Your task to perform on an android device: change notification settings in the gmail app Image 0: 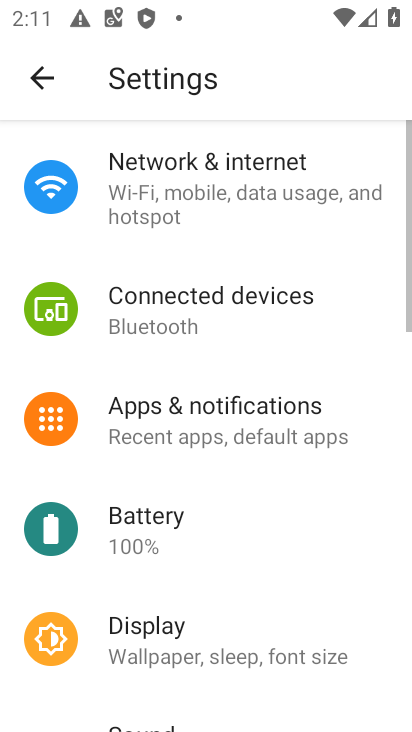
Step 0: press home button
Your task to perform on an android device: change notification settings in the gmail app Image 1: 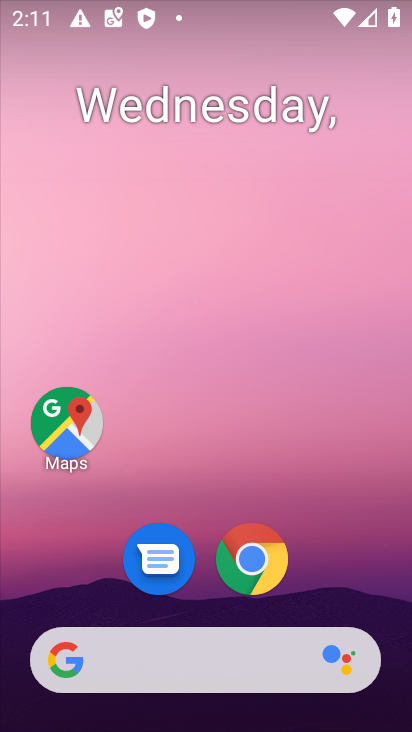
Step 1: drag from (193, 600) to (157, 77)
Your task to perform on an android device: change notification settings in the gmail app Image 2: 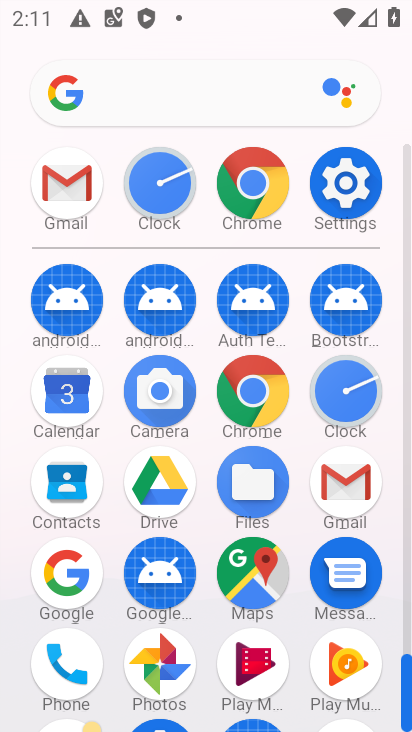
Step 2: click (351, 488)
Your task to perform on an android device: change notification settings in the gmail app Image 3: 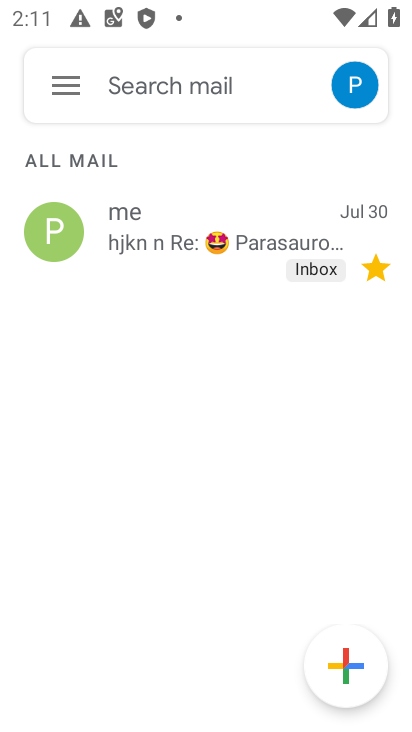
Step 3: click (69, 88)
Your task to perform on an android device: change notification settings in the gmail app Image 4: 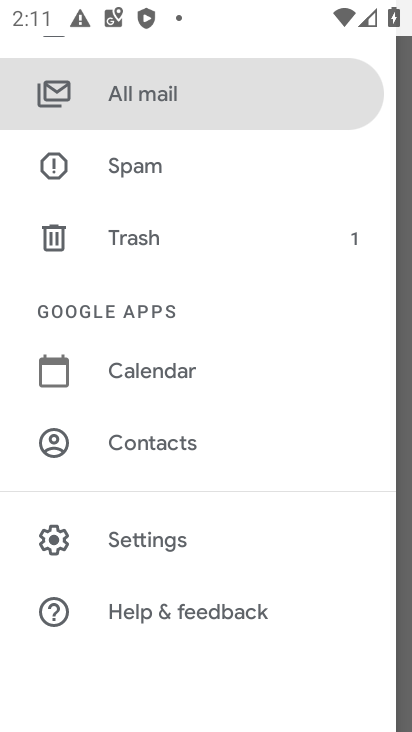
Step 4: click (140, 538)
Your task to perform on an android device: change notification settings in the gmail app Image 5: 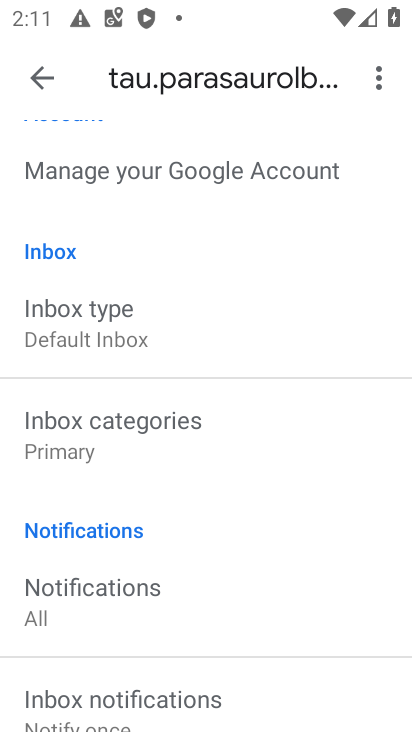
Step 5: click (102, 594)
Your task to perform on an android device: change notification settings in the gmail app Image 6: 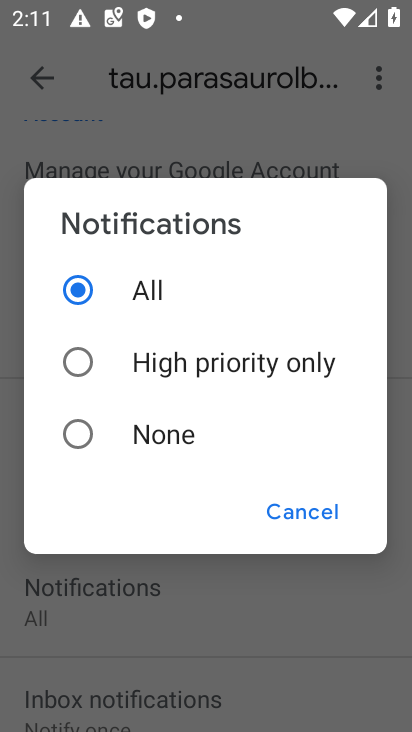
Step 6: click (71, 425)
Your task to perform on an android device: change notification settings in the gmail app Image 7: 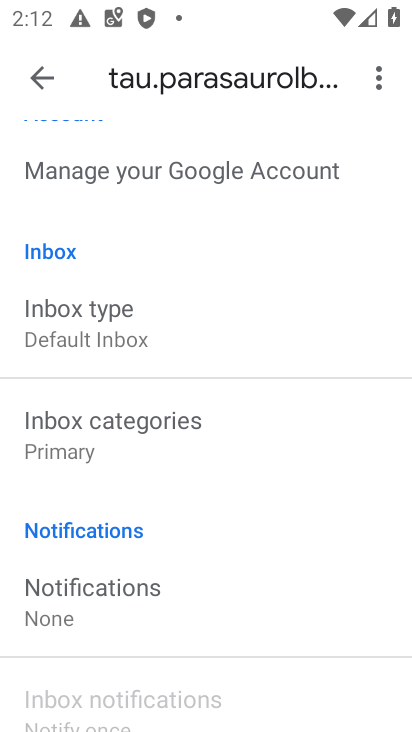
Step 7: task complete